Your task to perform on an android device: Search for hotels in San Francisco Image 0: 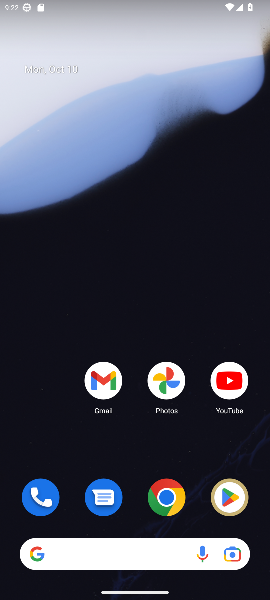
Step 0: drag from (94, 472) to (182, 12)
Your task to perform on an android device: Search for hotels in San Francisco Image 1: 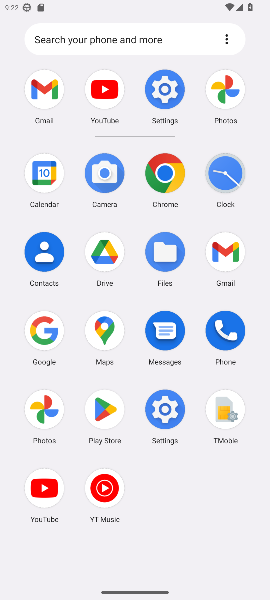
Step 1: click (58, 325)
Your task to perform on an android device: Search for hotels in San Francisco Image 2: 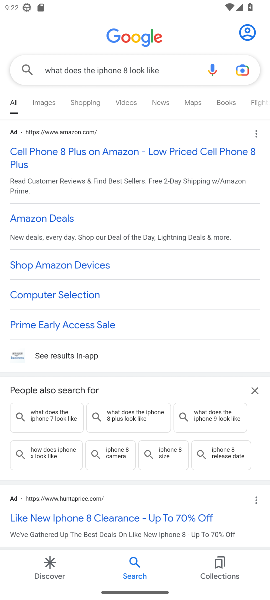
Step 2: click (154, 61)
Your task to perform on an android device: Search for hotels in San Francisco Image 3: 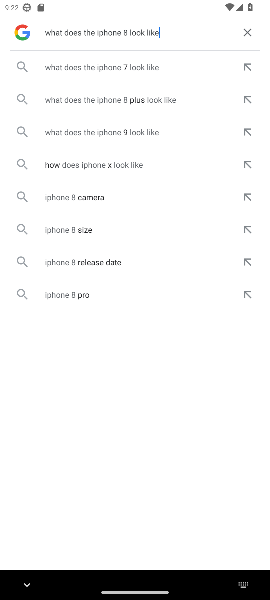
Step 3: click (245, 36)
Your task to perform on an android device: Search for hotels in San Francisco Image 4: 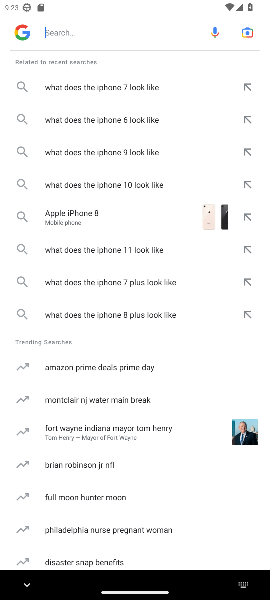
Step 4: click (74, 27)
Your task to perform on an android device: Search for hotels in San Francisco Image 5: 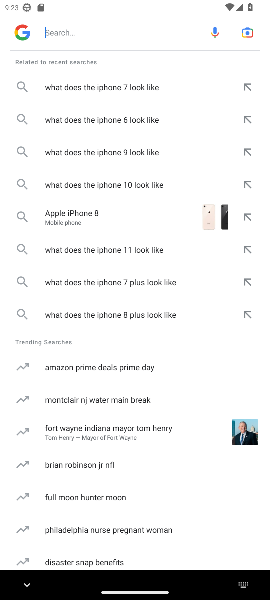
Step 5: click (74, 27)
Your task to perform on an android device: Search for hotels in San Francisco Image 6: 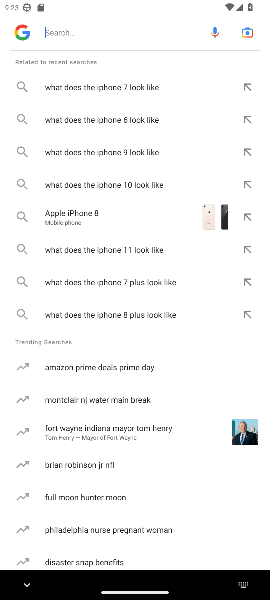
Step 6: type "Search for hotels in San Francisco "
Your task to perform on an android device: Search for hotels in San Francisco Image 7: 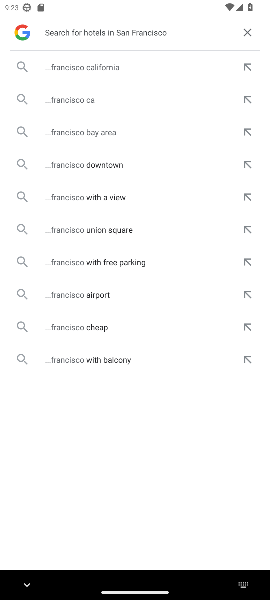
Step 7: click (78, 68)
Your task to perform on an android device: Search for hotels in San Francisco Image 8: 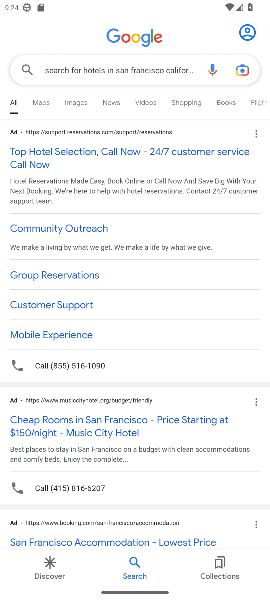
Step 8: click (186, 157)
Your task to perform on an android device: Search for hotels in San Francisco Image 9: 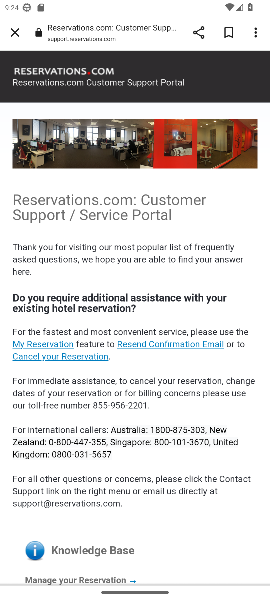
Step 9: drag from (143, 431) to (152, 136)
Your task to perform on an android device: Search for hotels in San Francisco Image 10: 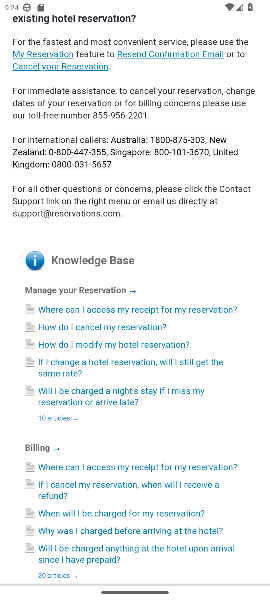
Step 10: drag from (56, 68) to (107, 493)
Your task to perform on an android device: Search for hotels in San Francisco Image 11: 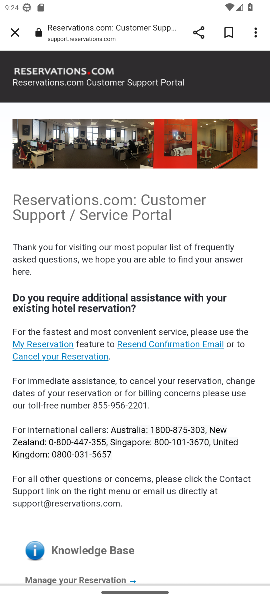
Step 11: click (9, 35)
Your task to perform on an android device: Search for hotels in San Francisco Image 12: 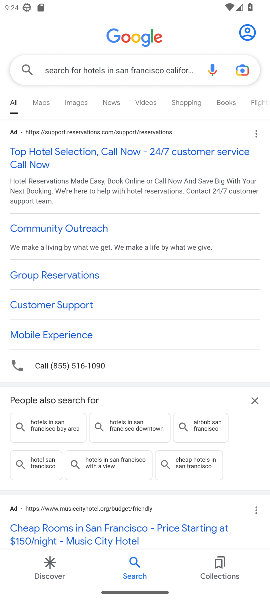
Step 12: click (123, 149)
Your task to perform on an android device: Search for hotels in San Francisco Image 13: 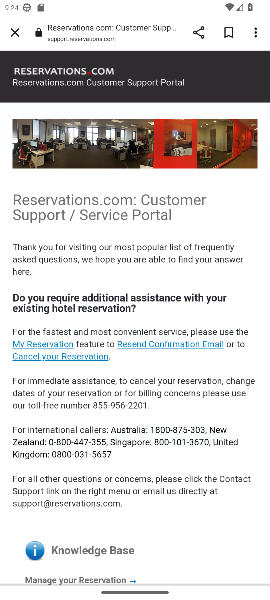
Step 13: task complete